Your task to perform on an android device: turn on data saver in the chrome app Image 0: 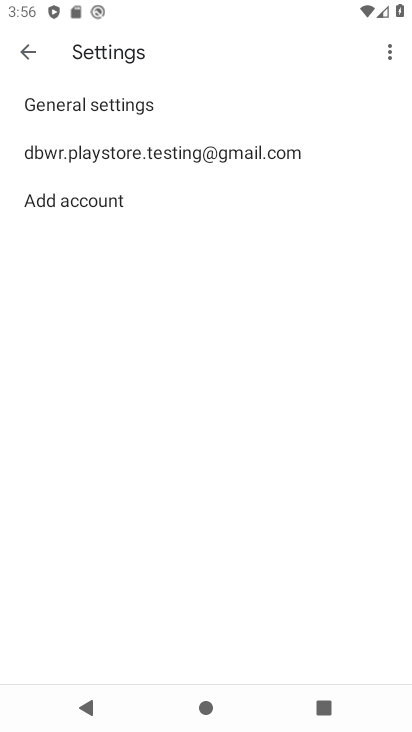
Step 0: press home button
Your task to perform on an android device: turn on data saver in the chrome app Image 1: 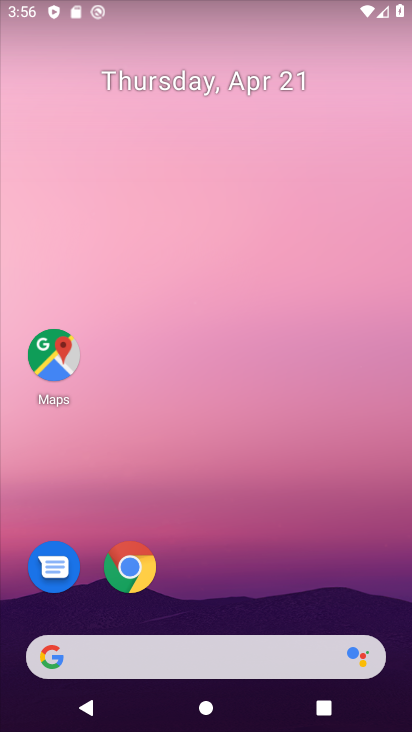
Step 1: click (142, 575)
Your task to perform on an android device: turn on data saver in the chrome app Image 2: 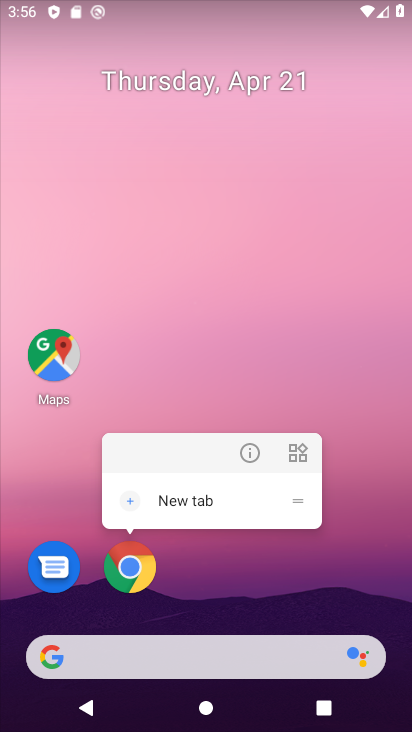
Step 2: click (142, 575)
Your task to perform on an android device: turn on data saver in the chrome app Image 3: 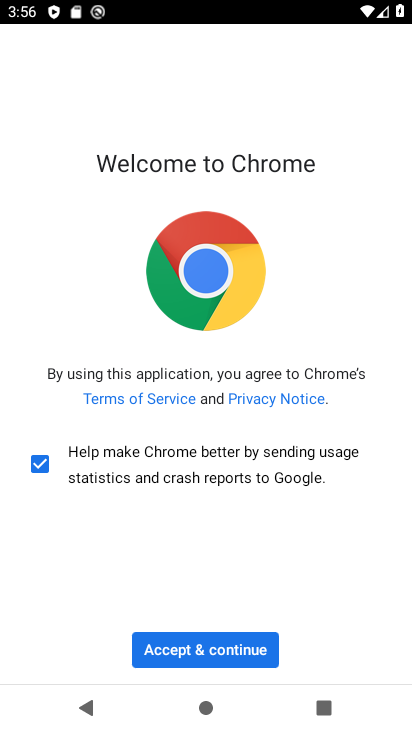
Step 3: click (167, 654)
Your task to perform on an android device: turn on data saver in the chrome app Image 4: 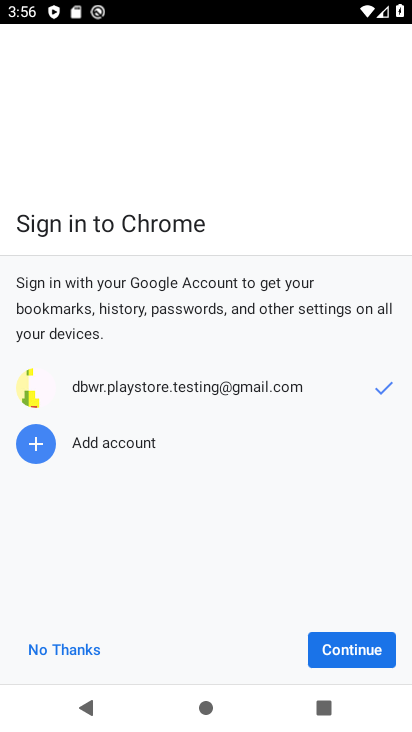
Step 4: click (371, 636)
Your task to perform on an android device: turn on data saver in the chrome app Image 5: 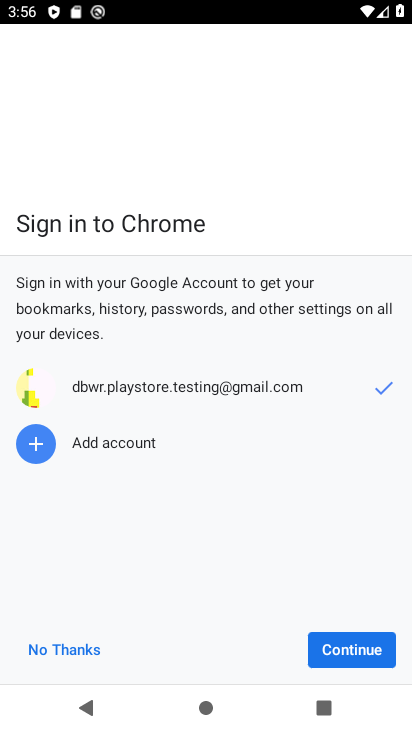
Step 5: click (371, 636)
Your task to perform on an android device: turn on data saver in the chrome app Image 6: 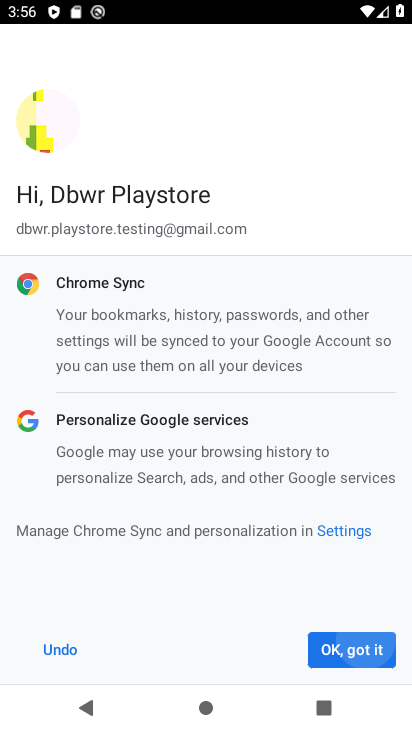
Step 6: click (371, 636)
Your task to perform on an android device: turn on data saver in the chrome app Image 7: 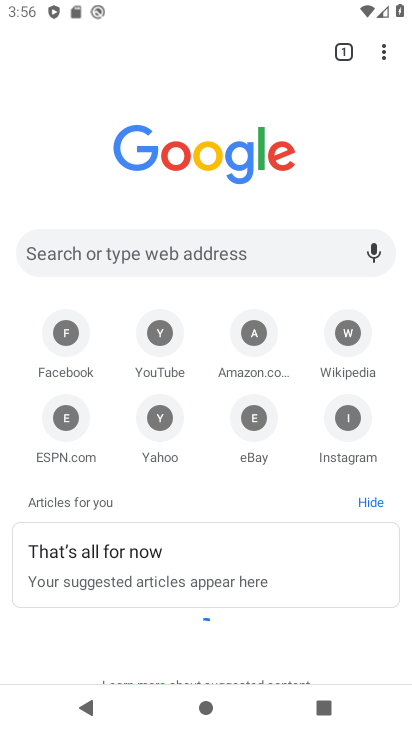
Step 7: drag from (377, 50) to (222, 427)
Your task to perform on an android device: turn on data saver in the chrome app Image 8: 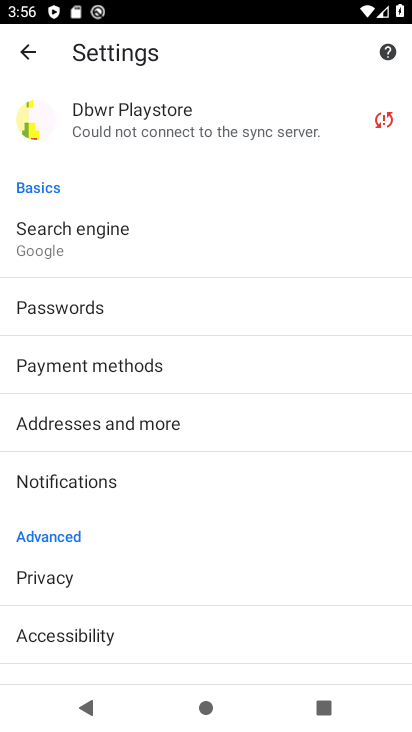
Step 8: drag from (185, 615) to (180, 181)
Your task to perform on an android device: turn on data saver in the chrome app Image 9: 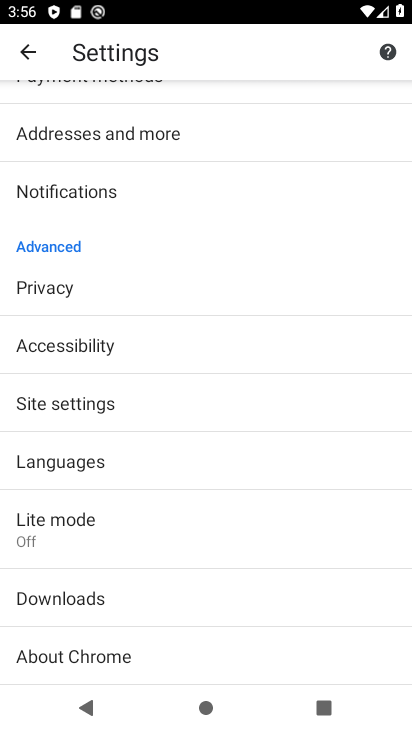
Step 9: click (143, 512)
Your task to perform on an android device: turn on data saver in the chrome app Image 10: 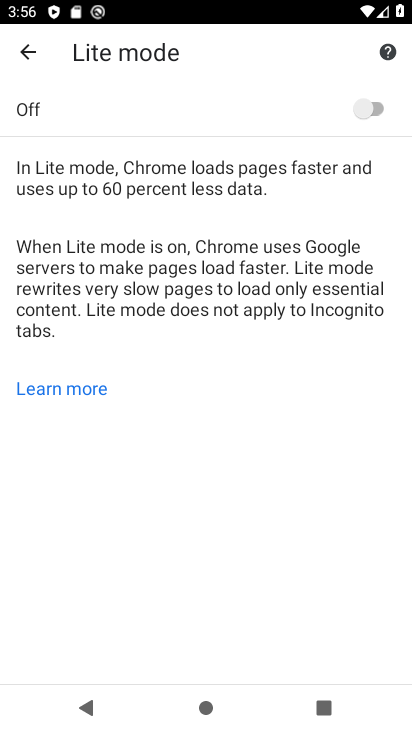
Step 10: click (337, 109)
Your task to perform on an android device: turn on data saver in the chrome app Image 11: 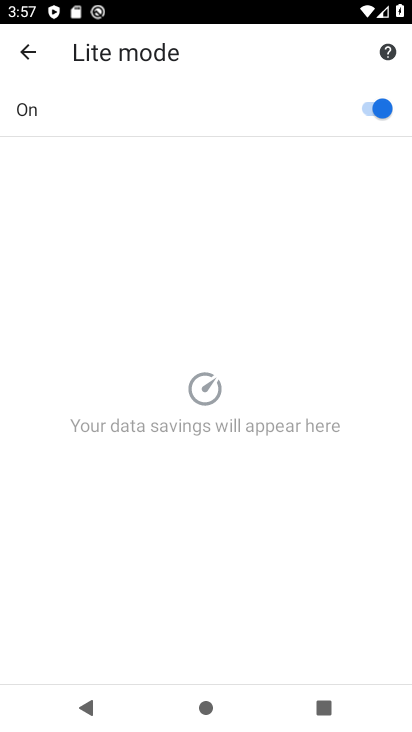
Step 11: task complete